Your task to perform on an android device: Show me the alarms in the clock app Image 0: 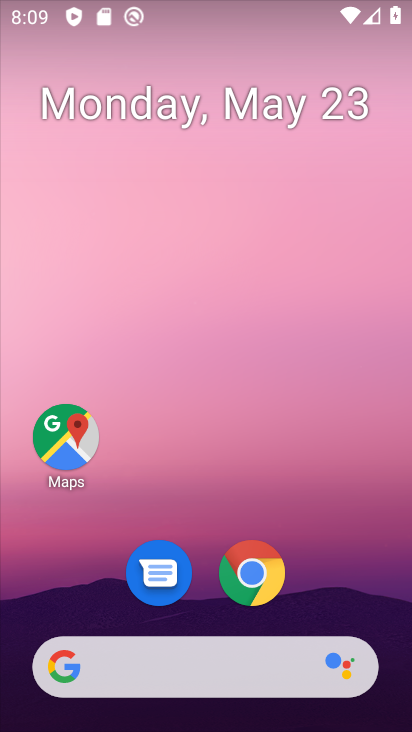
Step 0: drag from (205, 622) to (229, 28)
Your task to perform on an android device: Show me the alarms in the clock app Image 1: 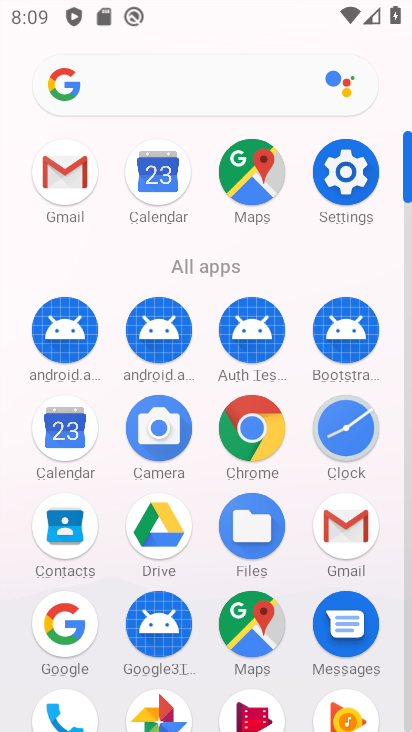
Step 1: click (344, 422)
Your task to perform on an android device: Show me the alarms in the clock app Image 2: 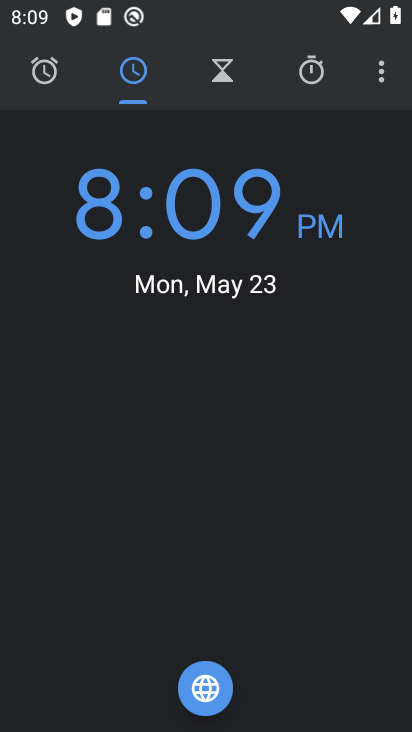
Step 2: click (44, 67)
Your task to perform on an android device: Show me the alarms in the clock app Image 3: 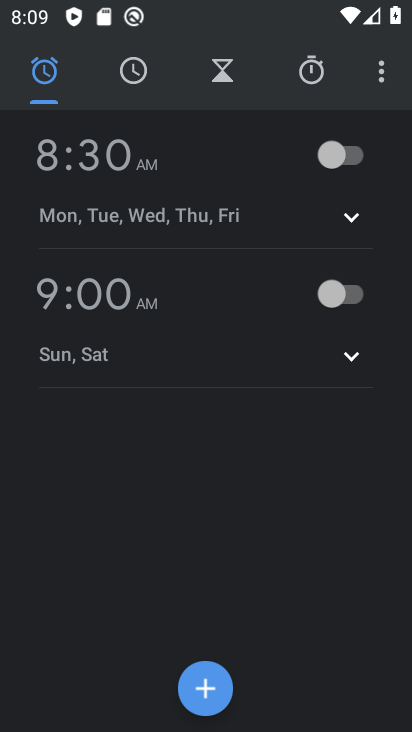
Step 3: task complete